Your task to perform on an android device: Open calendar and show me the second week of next month Image 0: 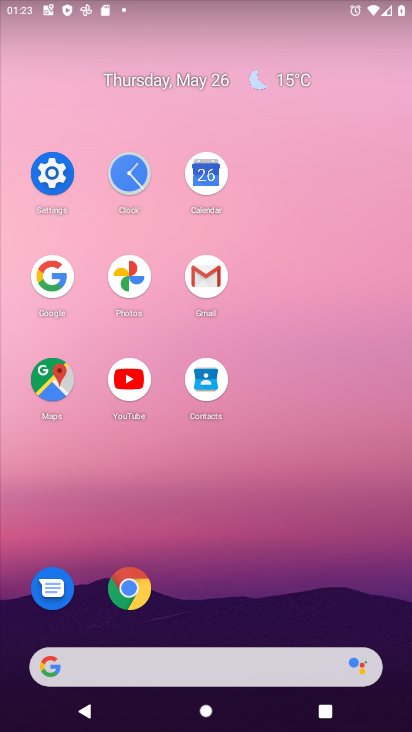
Step 0: click (211, 181)
Your task to perform on an android device: Open calendar and show me the second week of next month Image 1: 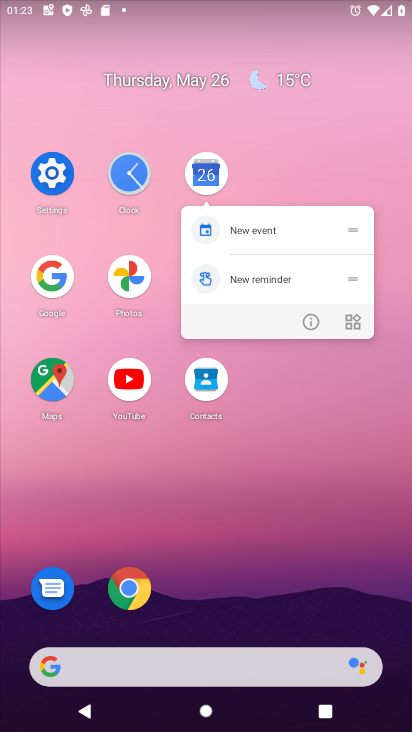
Step 1: click (204, 175)
Your task to perform on an android device: Open calendar and show me the second week of next month Image 2: 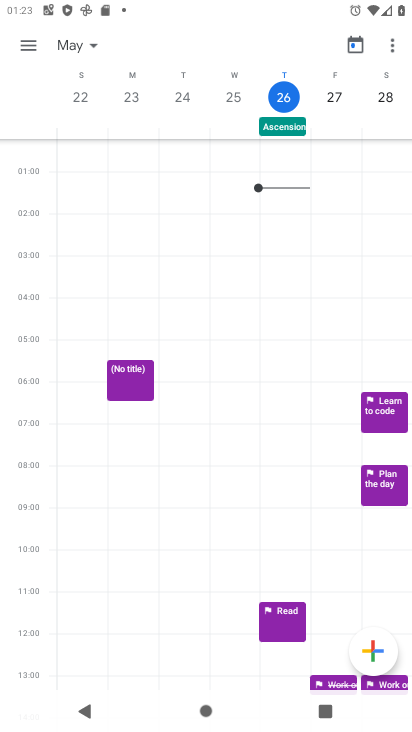
Step 2: click (87, 52)
Your task to perform on an android device: Open calendar and show me the second week of next month Image 3: 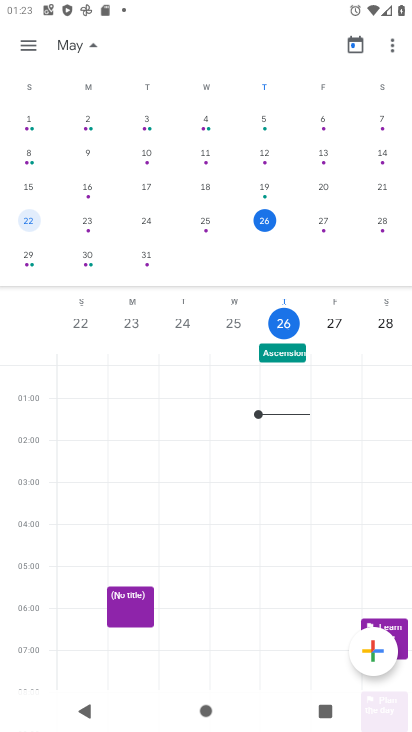
Step 3: drag from (385, 168) to (9, 216)
Your task to perform on an android device: Open calendar and show me the second week of next month Image 4: 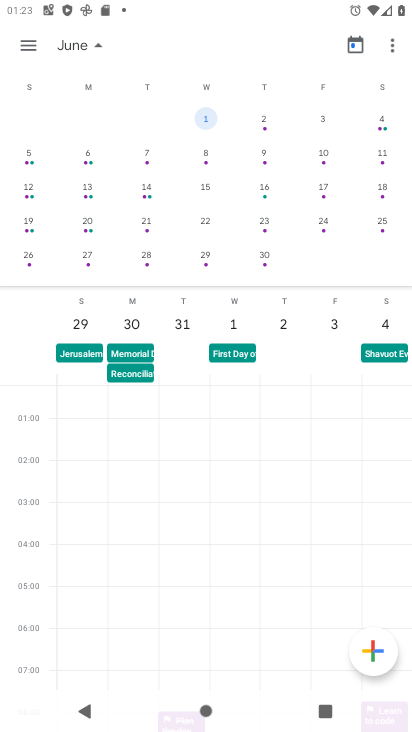
Step 4: click (38, 52)
Your task to perform on an android device: Open calendar and show me the second week of next month Image 5: 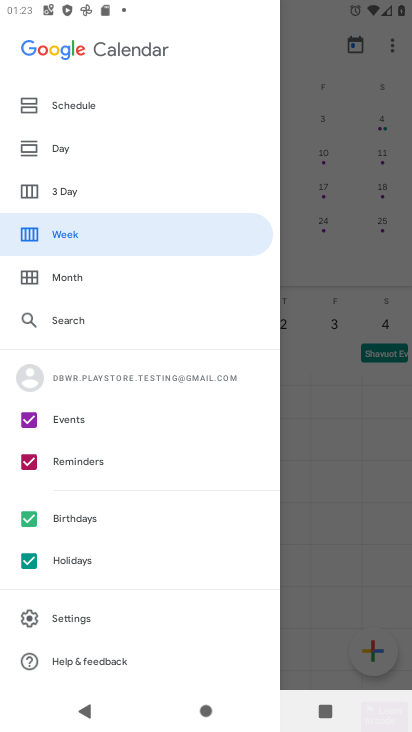
Step 5: click (97, 236)
Your task to perform on an android device: Open calendar and show me the second week of next month Image 6: 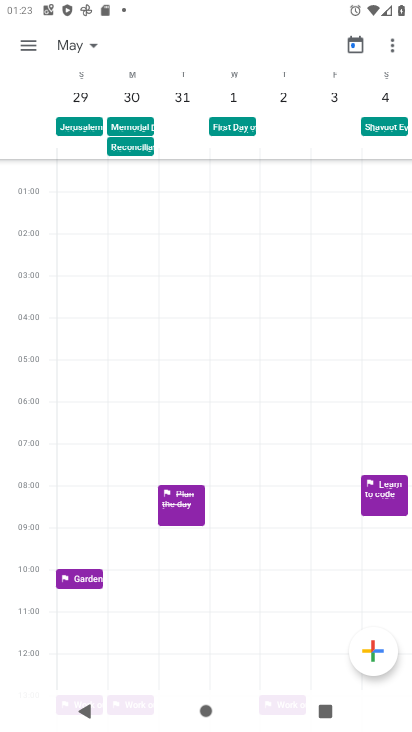
Step 6: task complete